Your task to perform on an android device: Open Google Maps and go to "Timeline" Image 0: 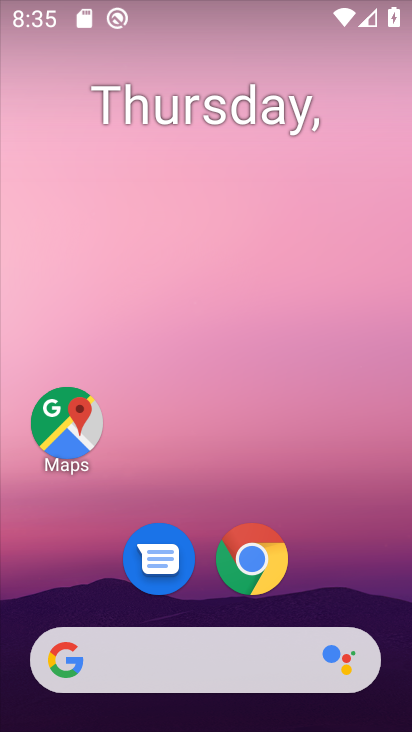
Step 0: drag from (76, 586) to (239, 174)
Your task to perform on an android device: Open Google Maps and go to "Timeline" Image 1: 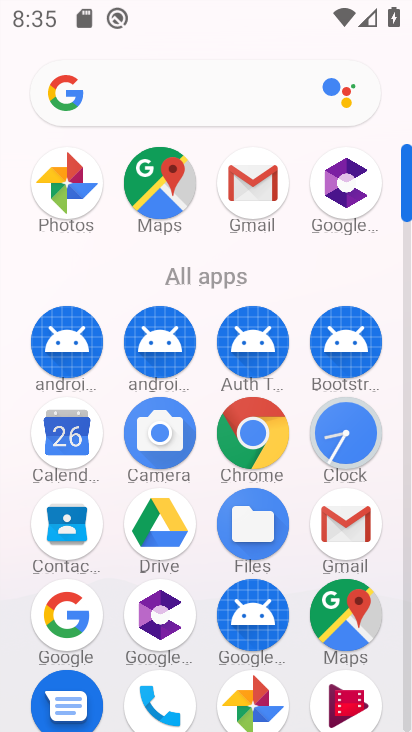
Step 1: click (367, 636)
Your task to perform on an android device: Open Google Maps and go to "Timeline" Image 2: 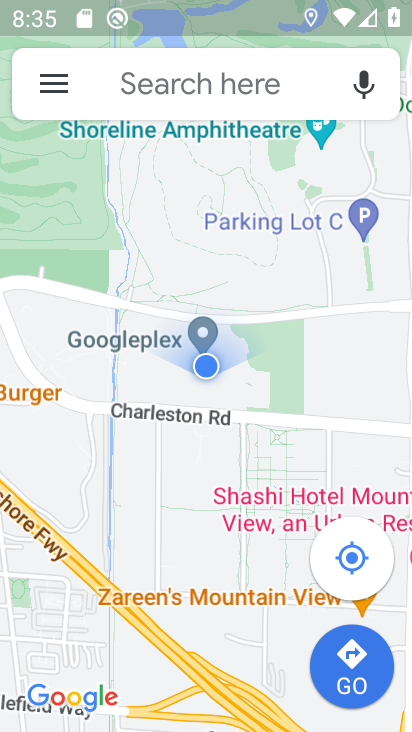
Step 2: click (71, 88)
Your task to perform on an android device: Open Google Maps and go to "Timeline" Image 3: 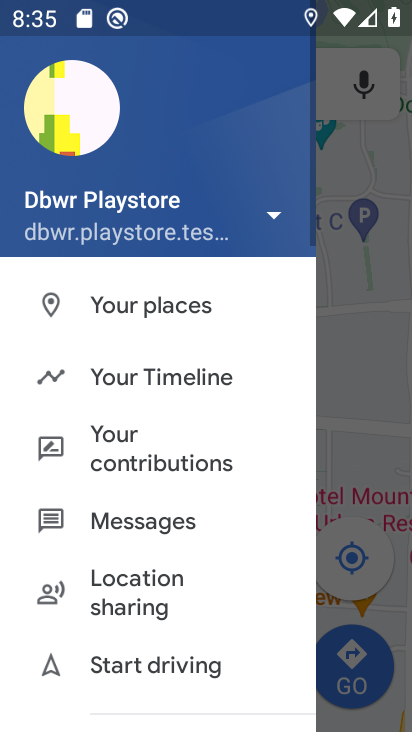
Step 3: click (165, 393)
Your task to perform on an android device: Open Google Maps and go to "Timeline" Image 4: 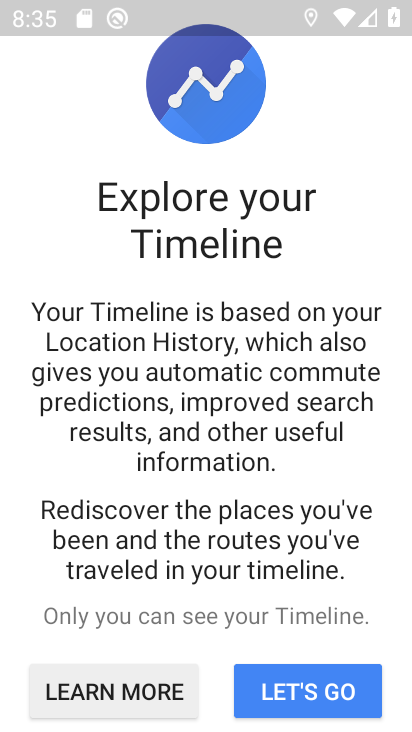
Step 4: click (359, 699)
Your task to perform on an android device: Open Google Maps and go to "Timeline" Image 5: 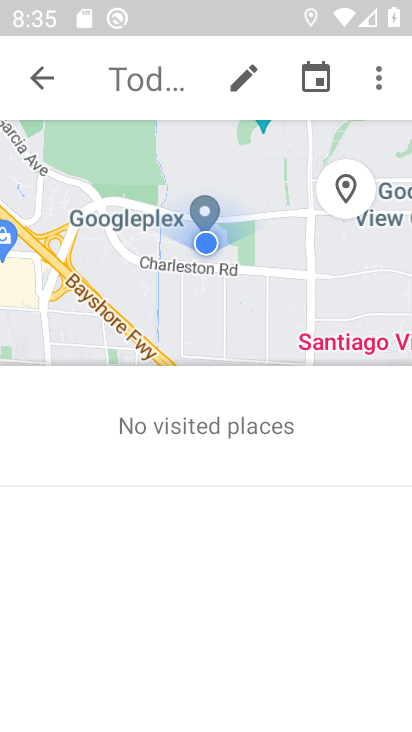
Step 5: task complete